Your task to perform on an android device: turn off priority inbox in the gmail app Image 0: 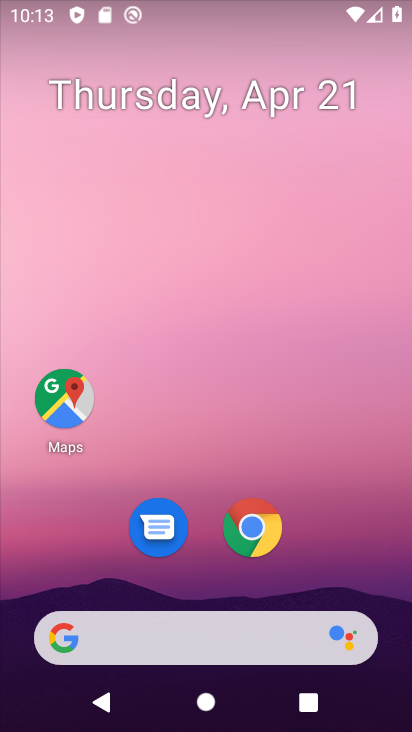
Step 0: drag from (347, 565) to (349, 135)
Your task to perform on an android device: turn off priority inbox in the gmail app Image 1: 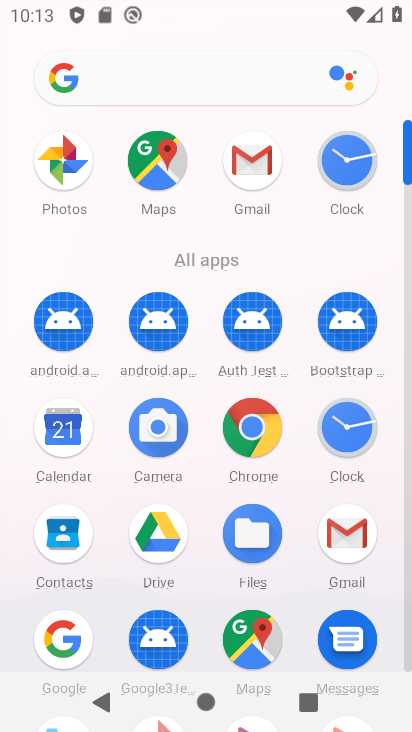
Step 1: click (358, 533)
Your task to perform on an android device: turn off priority inbox in the gmail app Image 2: 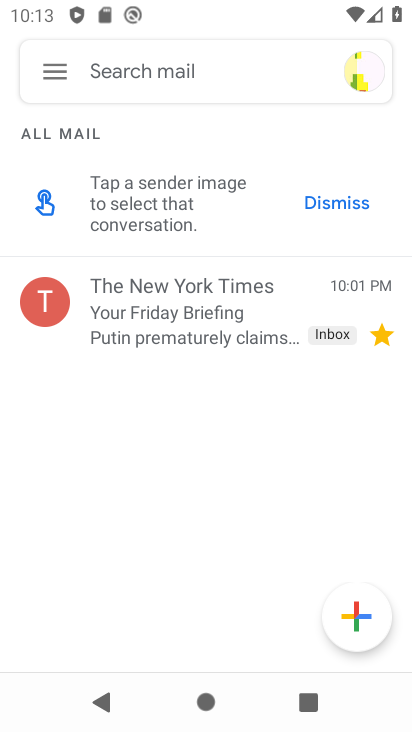
Step 2: click (59, 75)
Your task to perform on an android device: turn off priority inbox in the gmail app Image 3: 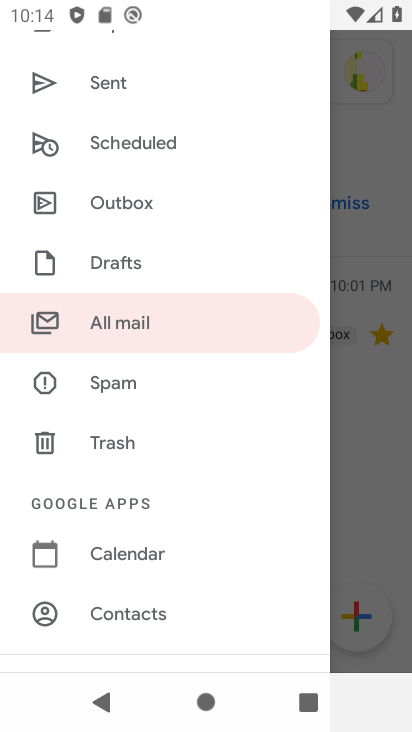
Step 3: drag from (172, 571) to (181, 235)
Your task to perform on an android device: turn off priority inbox in the gmail app Image 4: 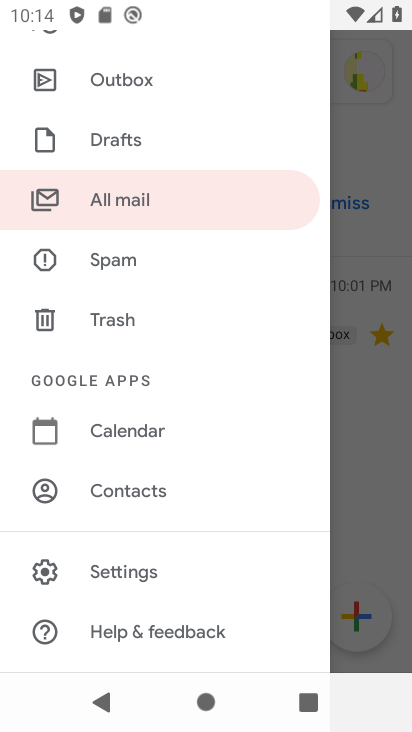
Step 4: click (125, 575)
Your task to perform on an android device: turn off priority inbox in the gmail app Image 5: 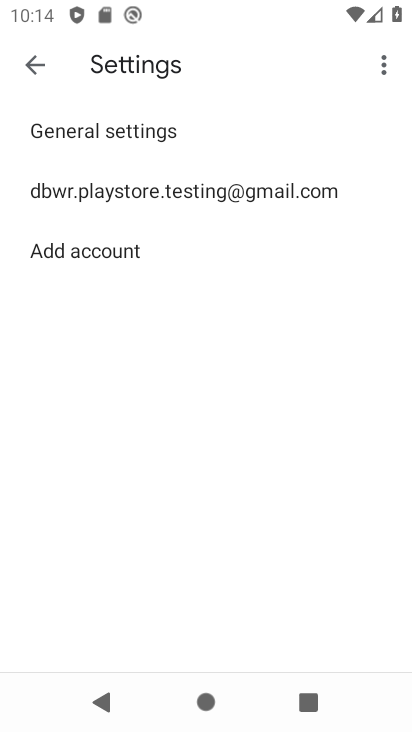
Step 5: click (108, 195)
Your task to perform on an android device: turn off priority inbox in the gmail app Image 6: 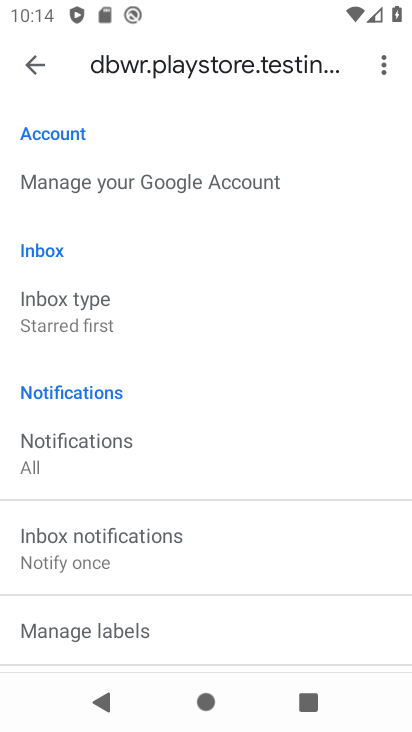
Step 6: click (88, 329)
Your task to perform on an android device: turn off priority inbox in the gmail app Image 7: 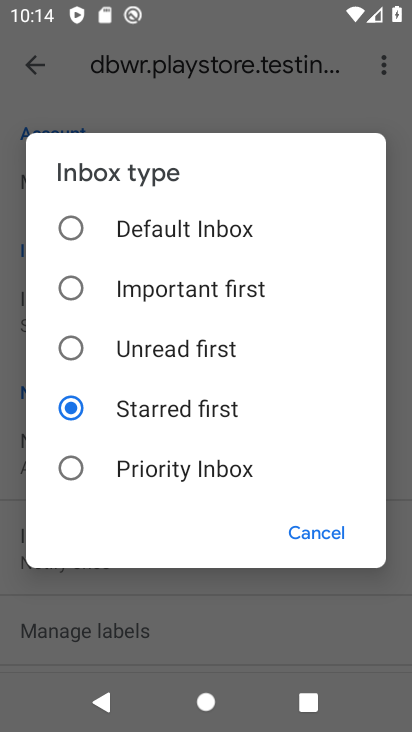
Step 7: click (138, 470)
Your task to perform on an android device: turn off priority inbox in the gmail app Image 8: 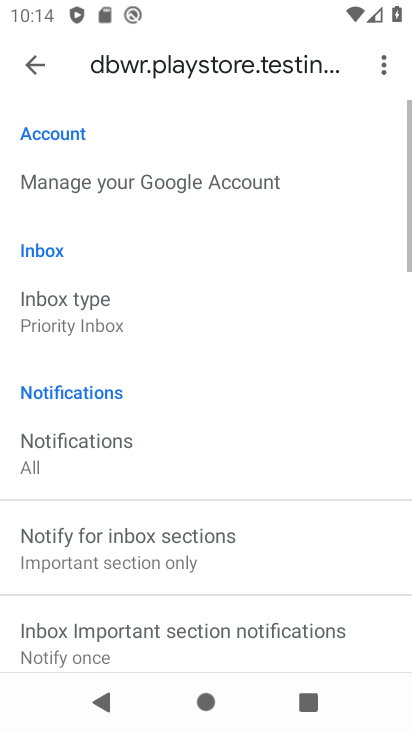
Step 8: click (119, 307)
Your task to perform on an android device: turn off priority inbox in the gmail app Image 9: 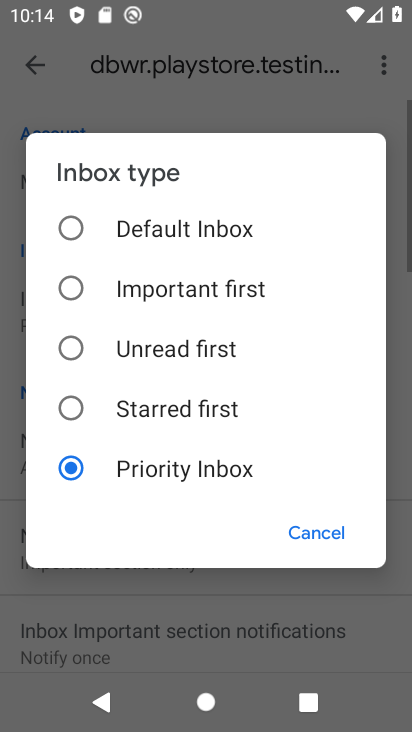
Step 9: click (132, 240)
Your task to perform on an android device: turn off priority inbox in the gmail app Image 10: 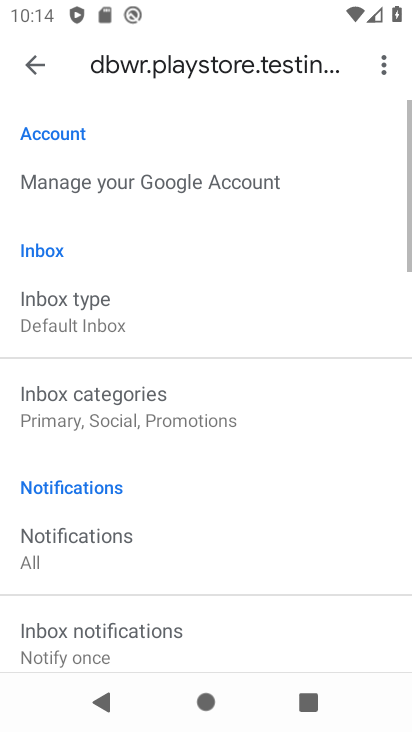
Step 10: task complete